Your task to perform on an android device: Open Google Chrome and click the shortcut for Amazon.com Image 0: 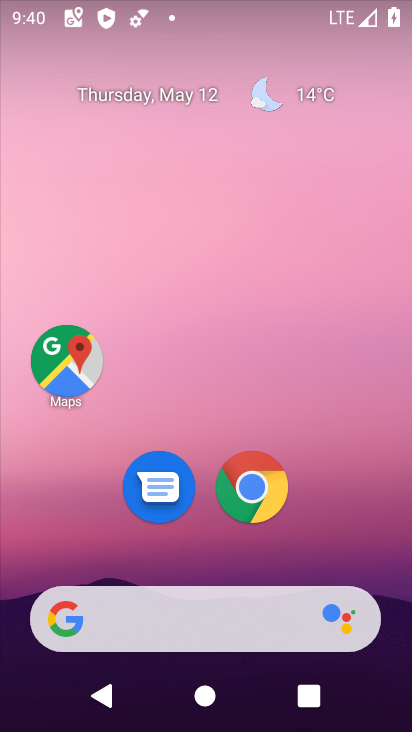
Step 0: click (256, 476)
Your task to perform on an android device: Open Google Chrome and click the shortcut for Amazon.com Image 1: 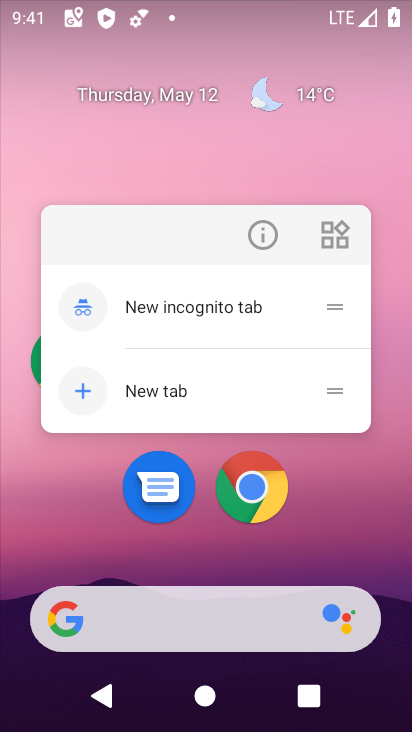
Step 1: click (251, 483)
Your task to perform on an android device: Open Google Chrome and click the shortcut for Amazon.com Image 2: 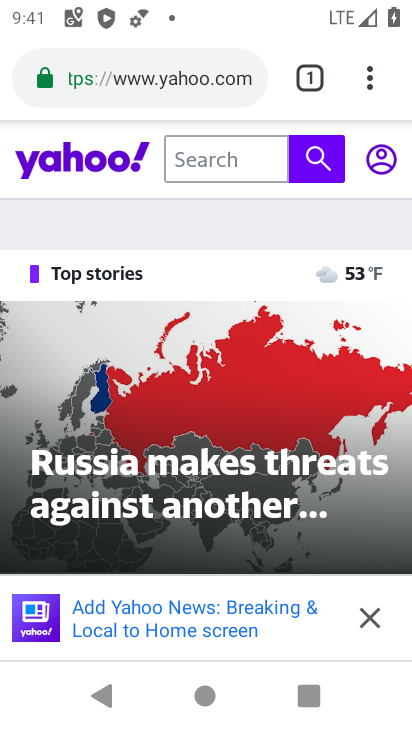
Step 2: click (313, 85)
Your task to perform on an android device: Open Google Chrome and click the shortcut for Amazon.com Image 3: 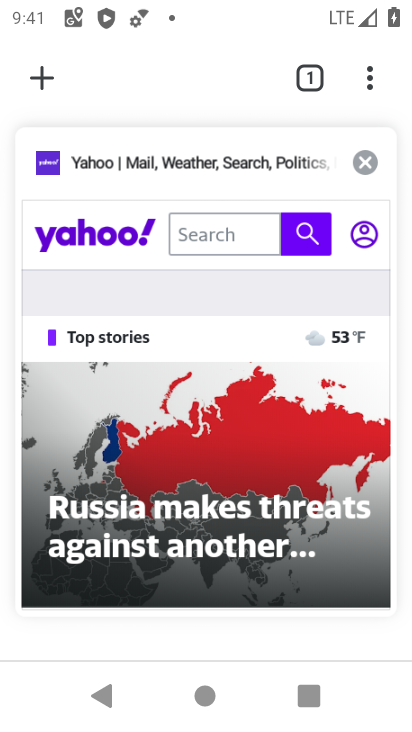
Step 3: click (48, 76)
Your task to perform on an android device: Open Google Chrome and click the shortcut for Amazon.com Image 4: 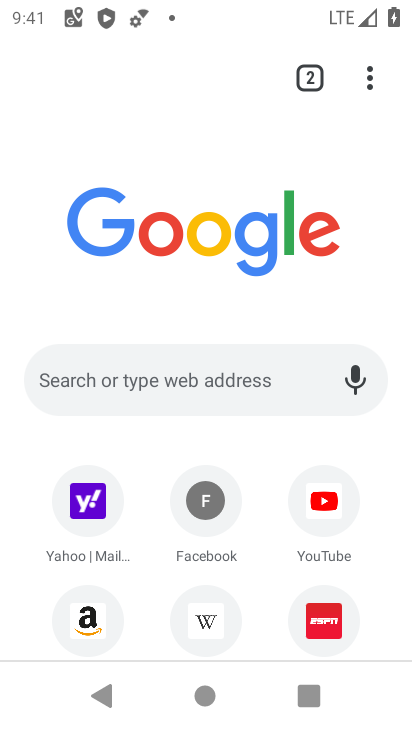
Step 4: click (85, 616)
Your task to perform on an android device: Open Google Chrome and click the shortcut for Amazon.com Image 5: 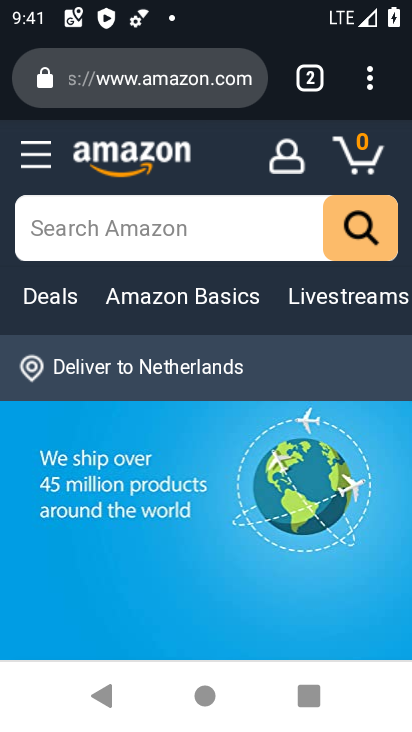
Step 5: task complete